Your task to perform on an android device: see tabs open on other devices in the chrome app Image 0: 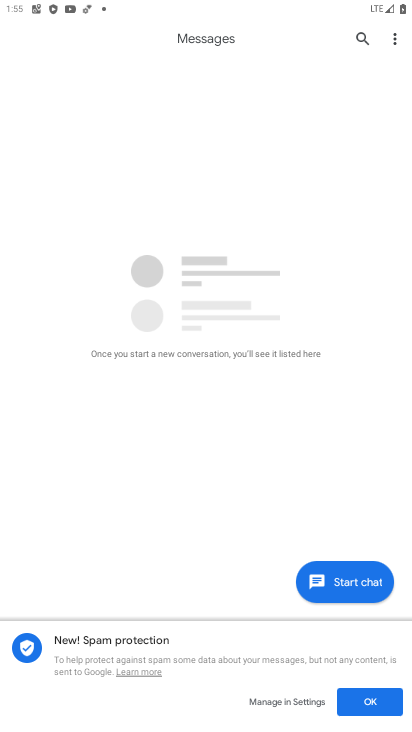
Step 0: press home button
Your task to perform on an android device: see tabs open on other devices in the chrome app Image 1: 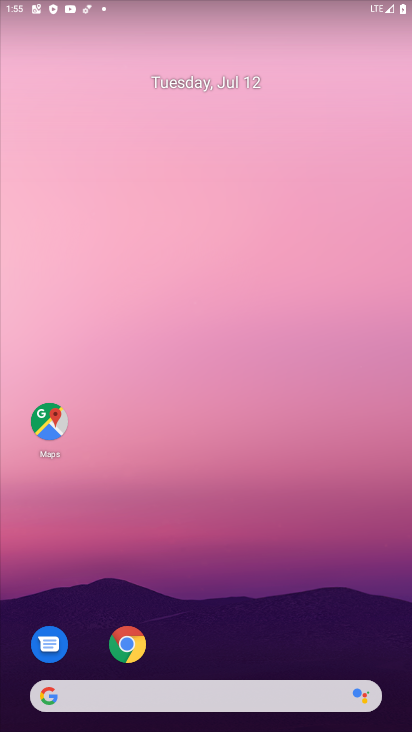
Step 1: drag from (212, 672) to (180, 86)
Your task to perform on an android device: see tabs open on other devices in the chrome app Image 2: 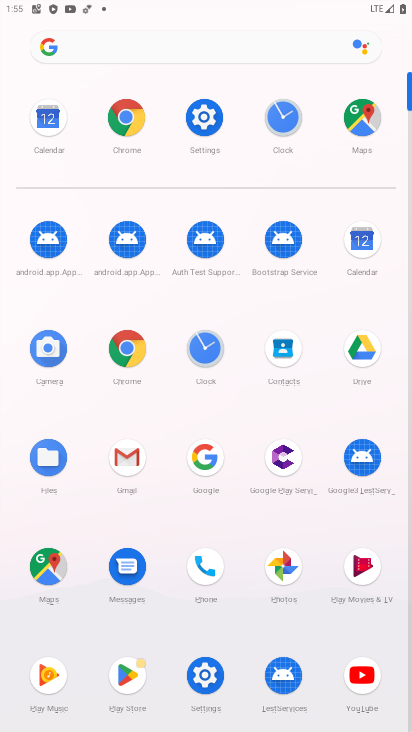
Step 2: click (135, 341)
Your task to perform on an android device: see tabs open on other devices in the chrome app Image 3: 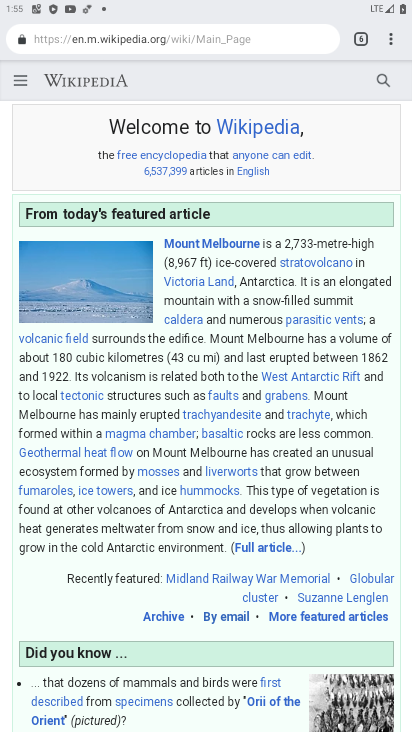
Step 3: click (361, 46)
Your task to perform on an android device: see tabs open on other devices in the chrome app Image 4: 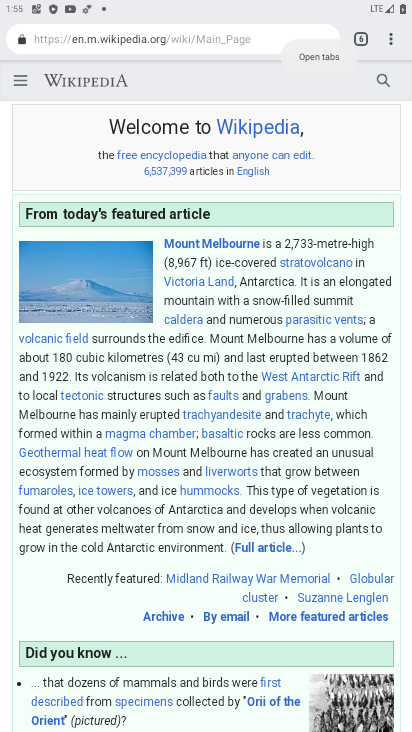
Step 4: click (360, 42)
Your task to perform on an android device: see tabs open on other devices in the chrome app Image 5: 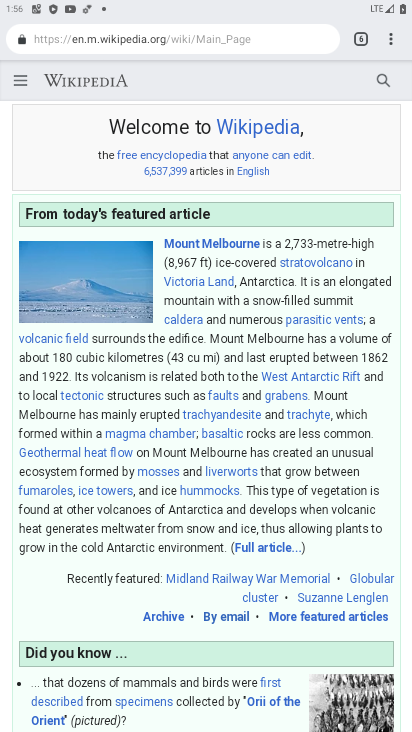
Step 5: click (357, 44)
Your task to perform on an android device: see tabs open on other devices in the chrome app Image 6: 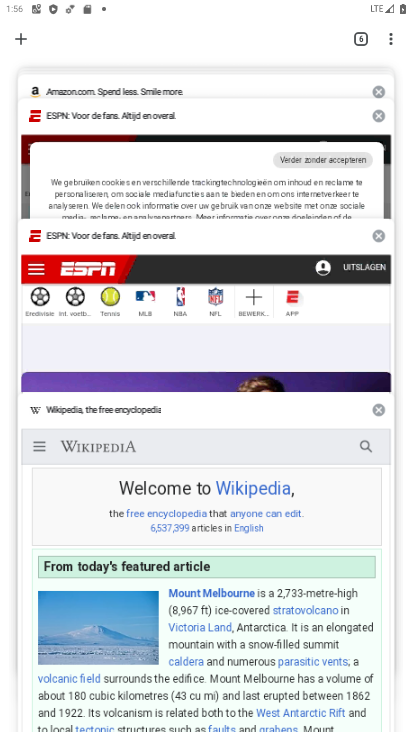
Step 6: task complete